Your task to perform on an android device: open app "NewsBreak: Local News & Alerts" Image 0: 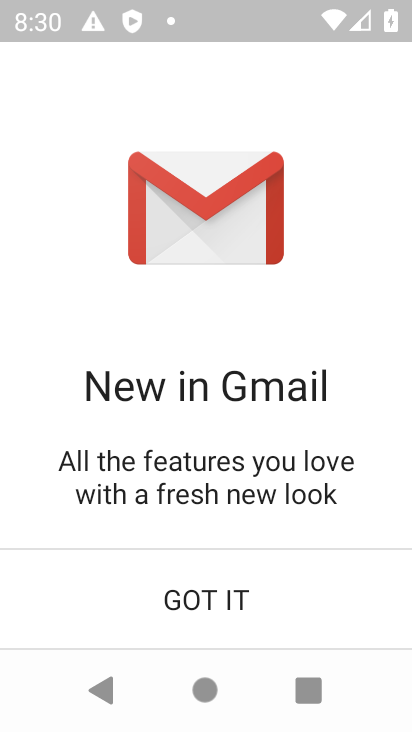
Step 0: press home button
Your task to perform on an android device: open app "NewsBreak: Local News & Alerts" Image 1: 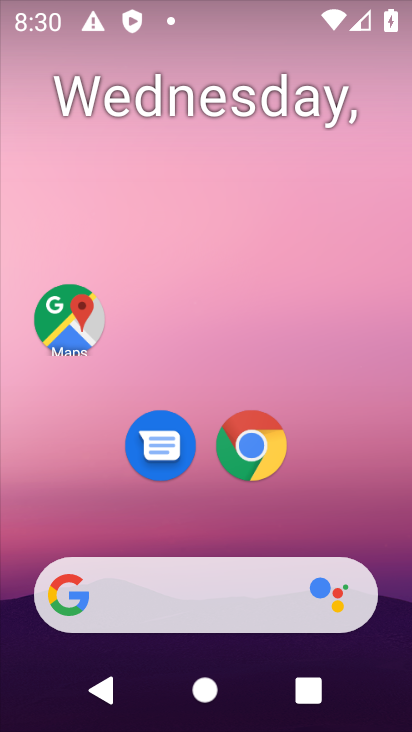
Step 1: drag from (175, 615) to (188, 71)
Your task to perform on an android device: open app "NewsBreak: Local News & Alerts" Image 2: 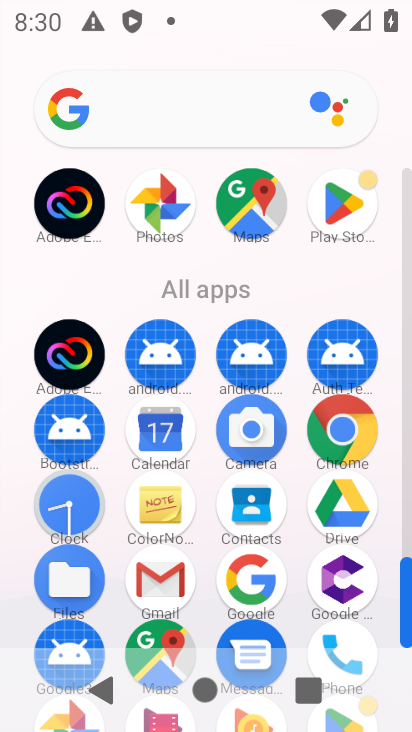
Step 2: click (345, 210)
Your task to perform on an android device: open app "NewsBreak: Local News & Alerts" Image 3: 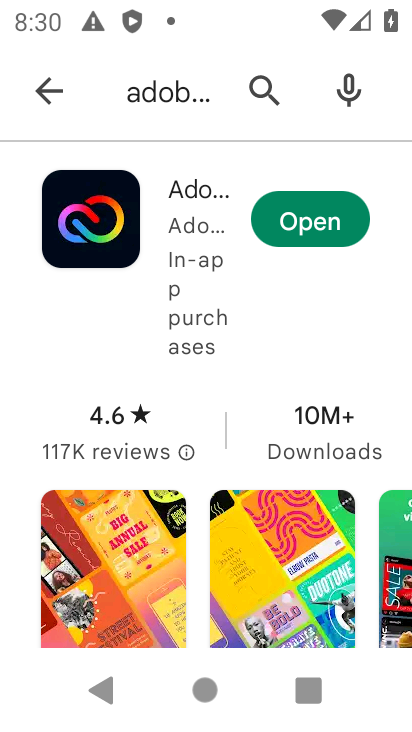
Step 3: press back button
Your task to perform on an android device: open app "NewsBreak: Local News & Alerts" Image 4: 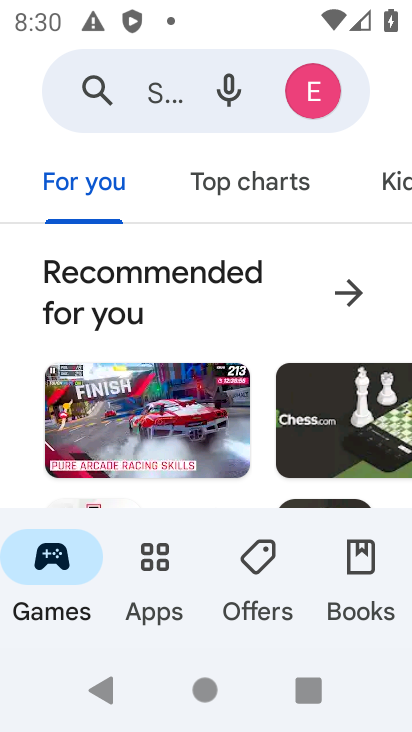
Step 4: click (168, 102)
Your task to perform on an android device: open app "NewsBreak: Local News & Alerts" Image 5: 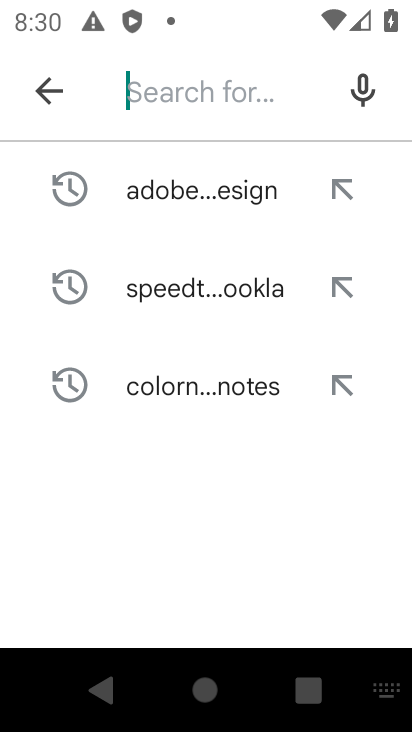
Step 5: type "NewsBreak: Local News & Alerts"
Your task to perform on an android device: open app "NewsBreak: Local News & Alerts" Image 6: 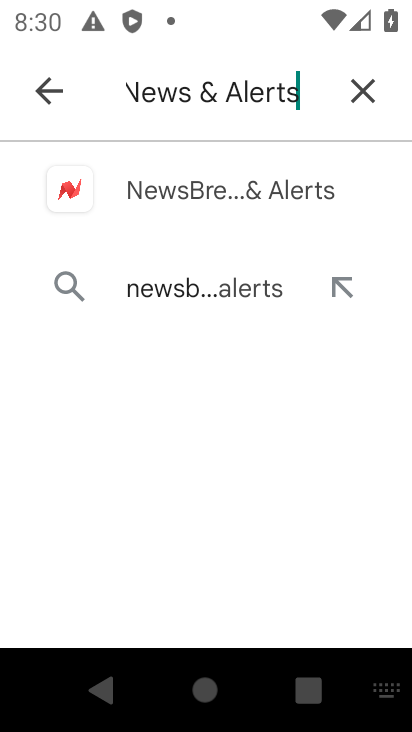
Step 6: click (155, 192)
Your task to perform on an android device: open app "NewsBreak: Local News & Alerts" Image 7: 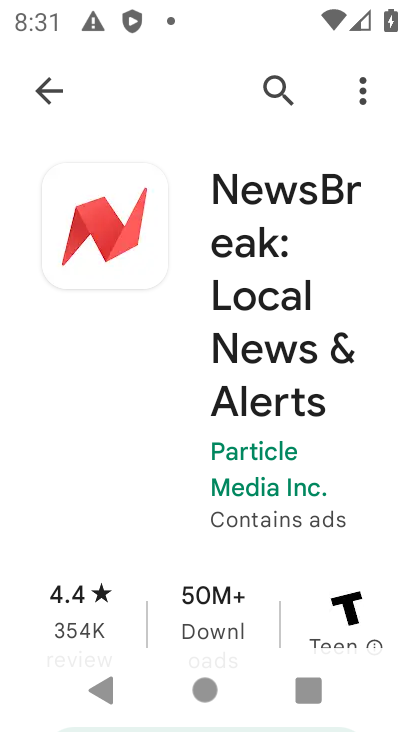
Step 7: task complete